Your task to perform on an android device: Open the map Image 0: 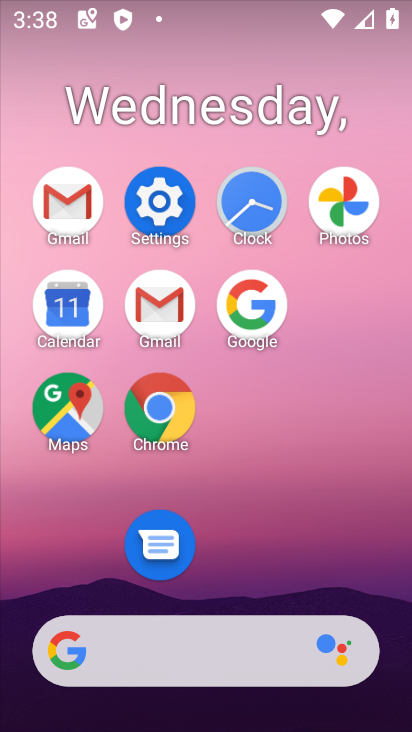
Step 0: click (62, 405)
Your task to perform on an android device: Open the map Image 1: 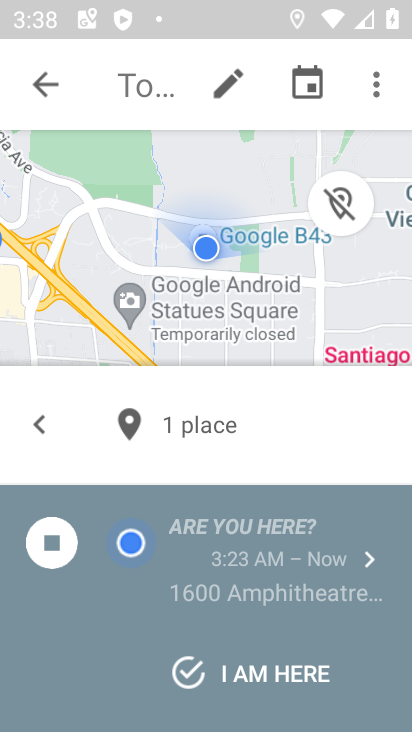
Step 1: task complete